Your task to perform on an android device: Go to accessibility settings Image 0: 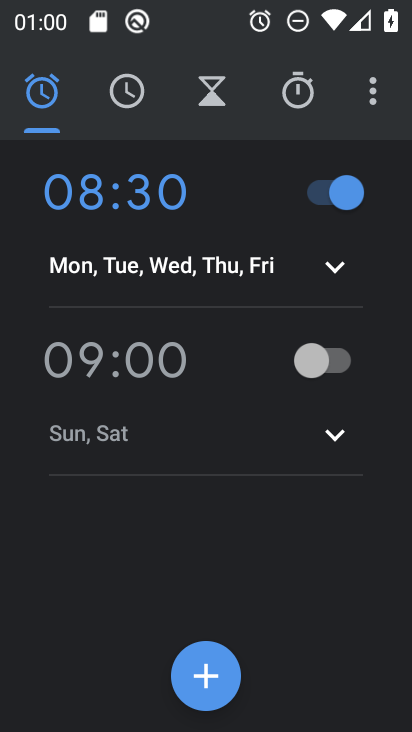
Step 0: press home button
Your task to perform on an android device: Go to accessibility settings Image 1: 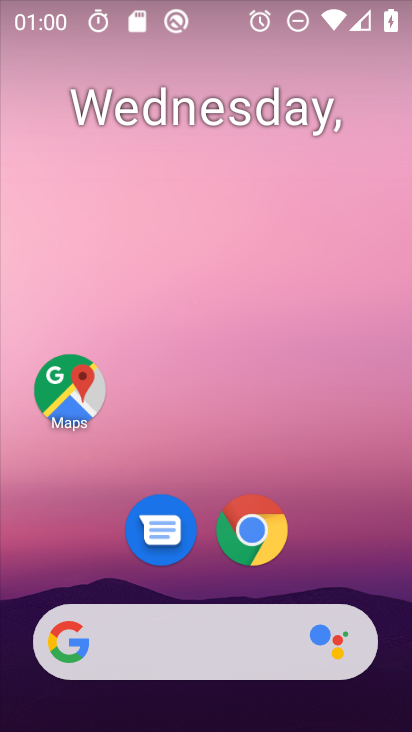
Step 1: drag from (242, 680) to (267, 117)
Your task to perform on an android device: Go to accessibility settings Image 2: 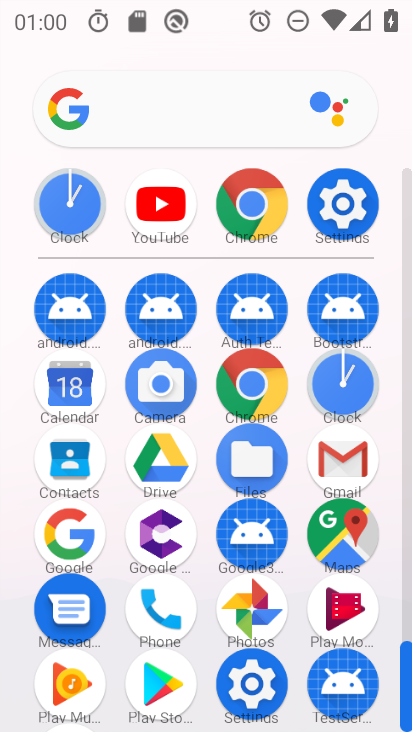
Step 2: click (342, 194)
Your task to perform on an android device: Go to accessibility settings Image 3: 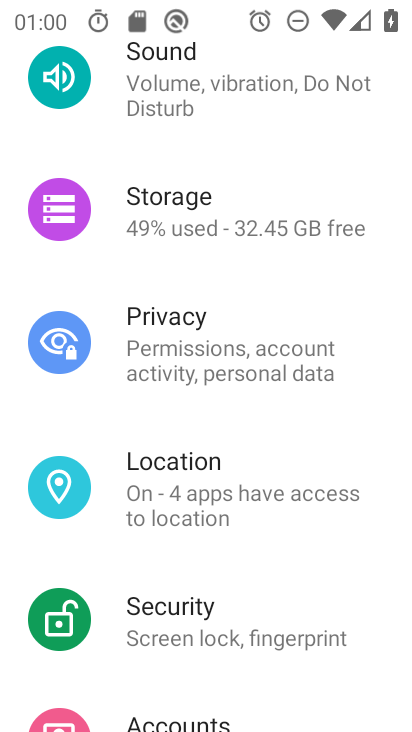
Step 3: drag from (261, 712) to (294, 197)
Your task to perform on an android device: Go to accessibility settings Image 4: 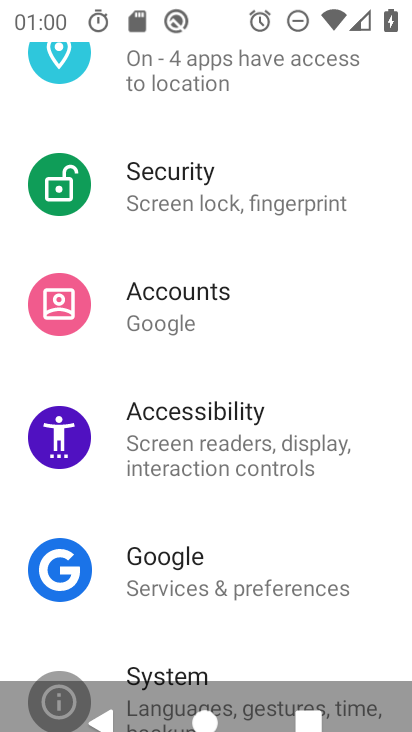
Step 4: click (281, 443)
Your task to perform on an android device: Go to accessibility settings Image 5: 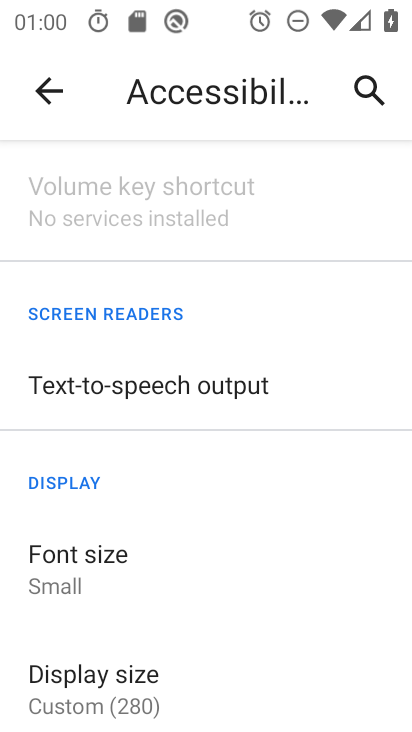
Step 5: task complete